Your task to perform on an android device: Open the stopwatch Image 0: 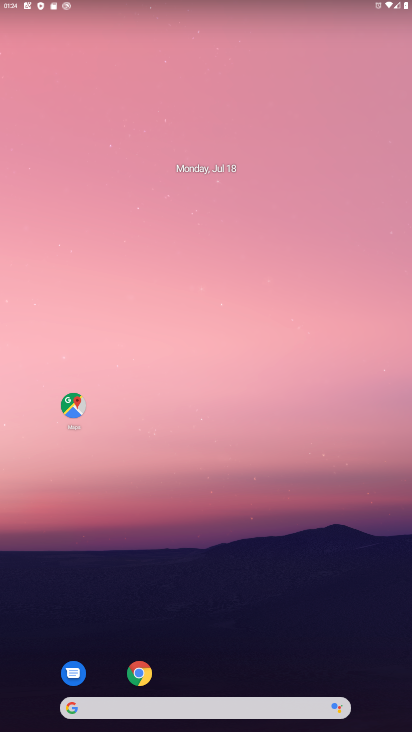
Step 0: drag from (309, 598) to (309, 11)
Your task to perform on an android device: Open the stopwatch Image 1: 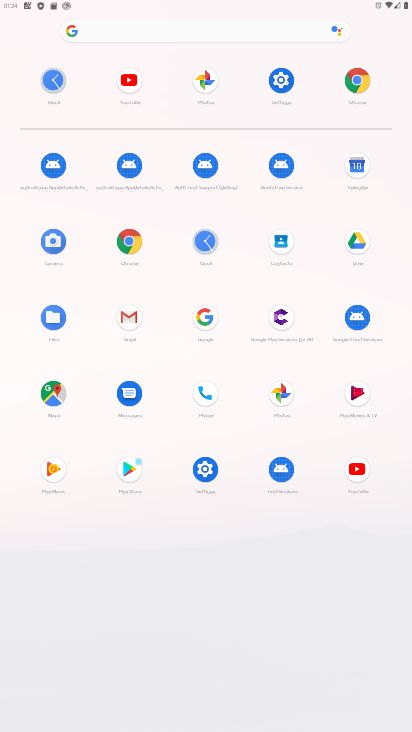
Step 1: click (61, 80)
Your task to perform on an android device: Open the stopwatch Image 2: 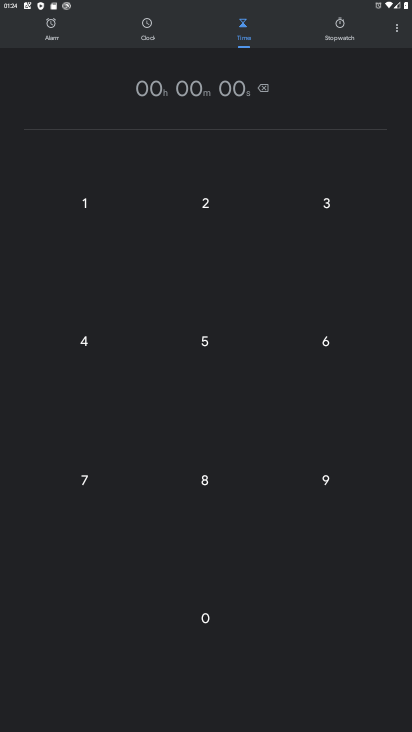
Step 2: click (350, 44)
Your task to perform on an android device: Open the stopwatch Image 3: 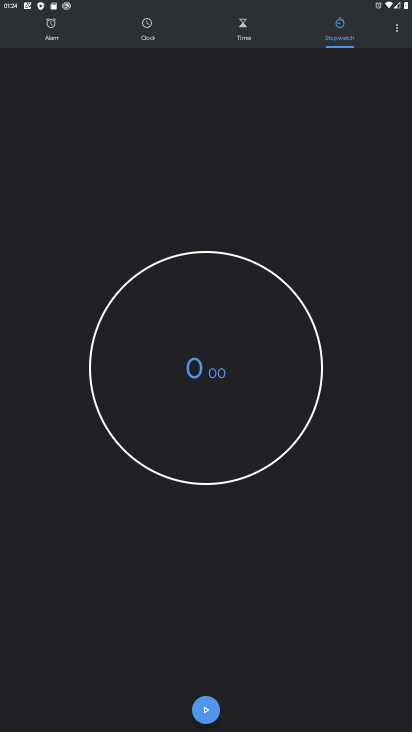
Step 3: task complete